Your task to perform on an android device: Open display settings Image 0: 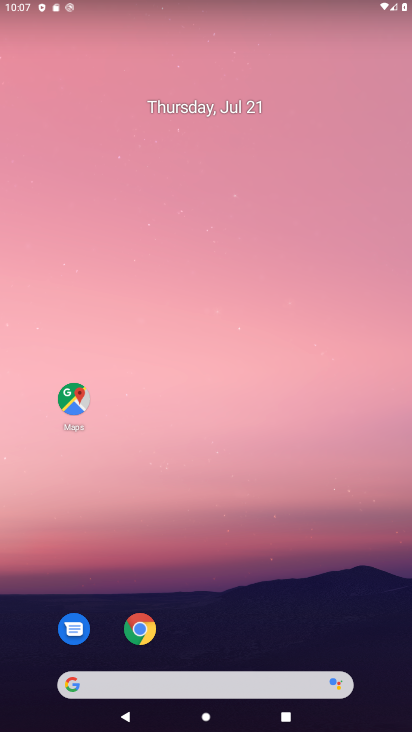
Step 0: drag from (275, 619) to (185, 171)
Your task to perform on an android device: Open display settings Image 1: 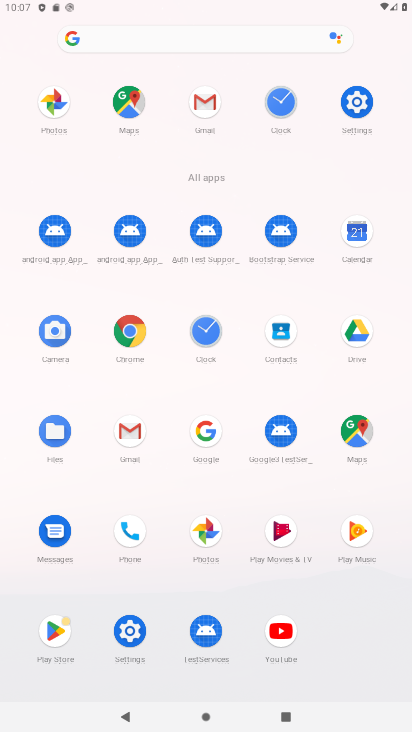
Step 1: click (359, 101)
Your task to perform on an android device: Open display settings Image 2: 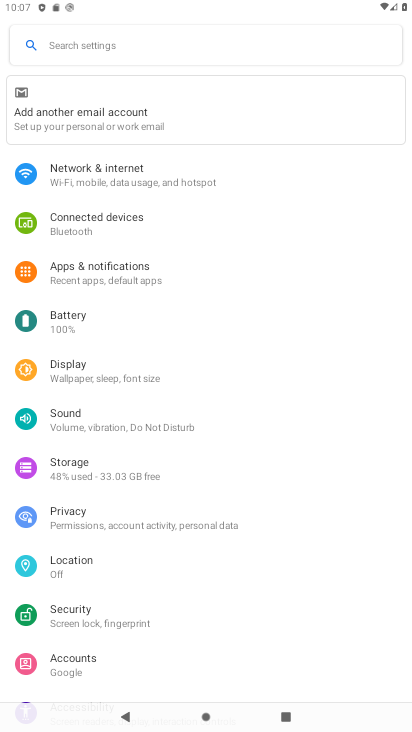
Step 2: click (117, 365)
Your task to perform on an android device: Open display settings Image 3: 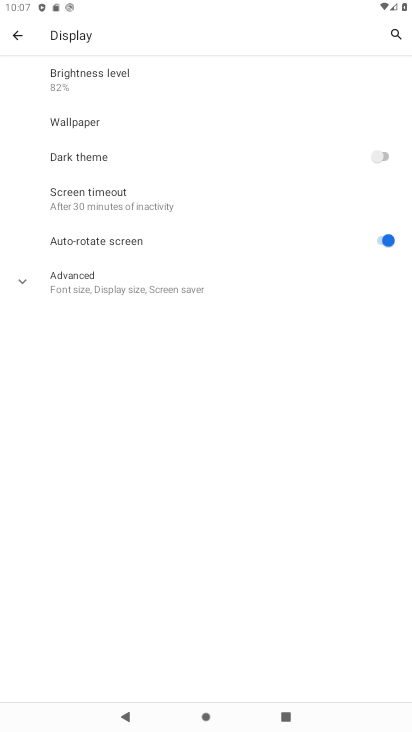
Step 3: task complete